Your task to perform on an android device: What's on my calendar today? Image 0: 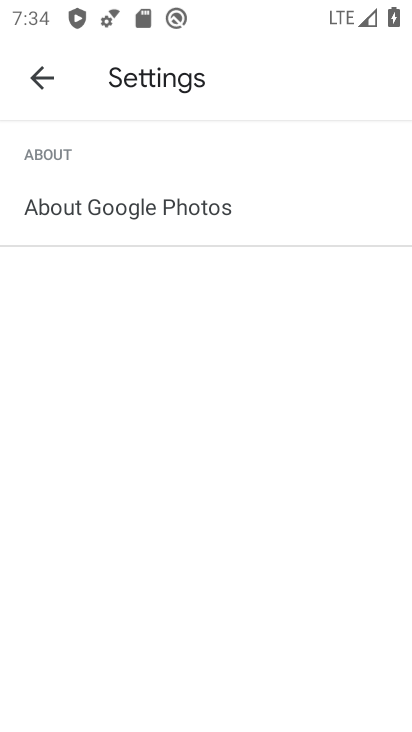
Step 0: press home button
Your task to perform on an android device: What's on my calendar today? Image 1: 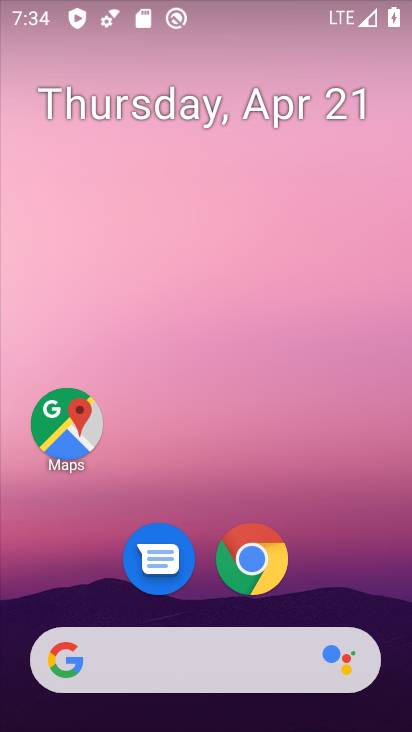
Step 1: drag from (335, 501) to (346, 91)
Your task to perform on an android device: What's on my calendar today? Image 2: 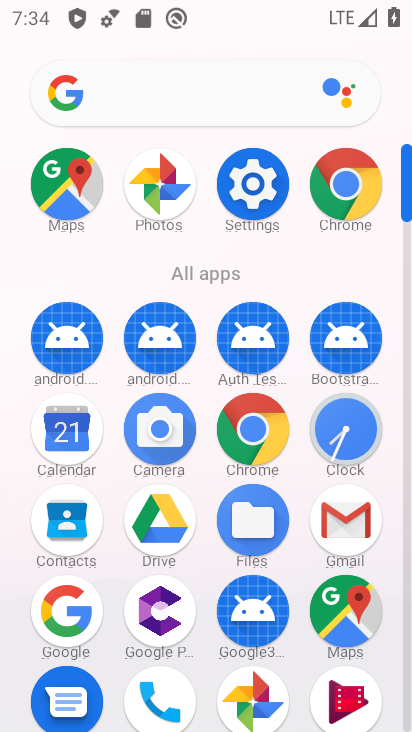
Step 2: click (67, 429)
Your task to perform on an android device: What's on my calendar today? Image 3: 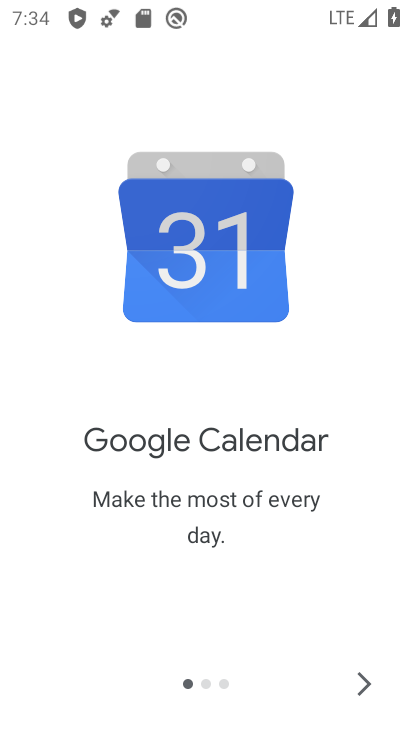
Step 3: click (366, 681)
Your task to perform on an android device: What's on my calendar today? Image 4: 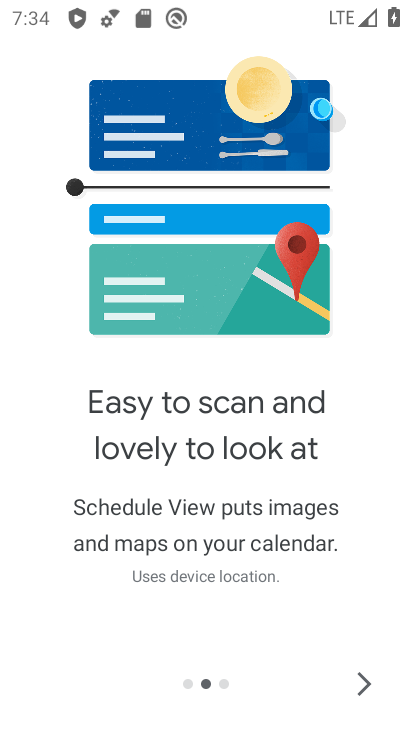
Step 4: click (366, 680)
Your task to perform on an android device: What's on my calendar today? Image 5: 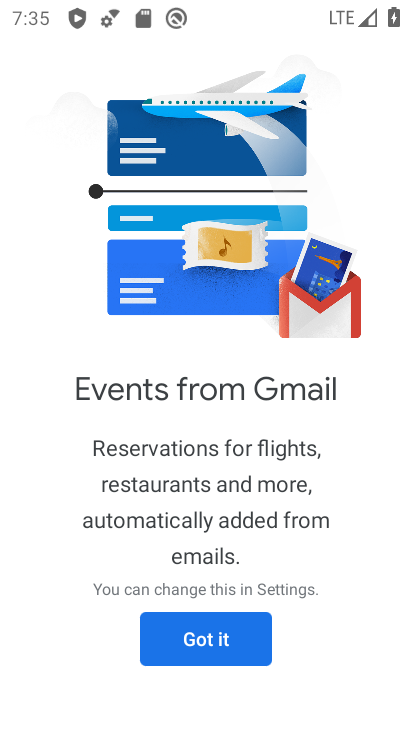
Step 5: click (247, 638)
Your task to perform on an android device: What's on my calendar today? Image 6: 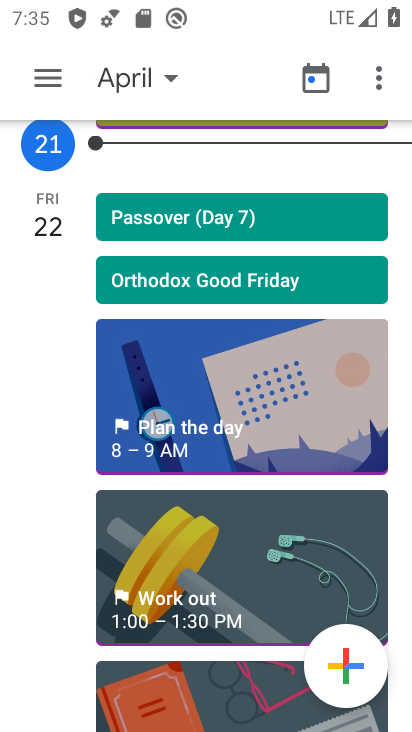
Step 6: task complete